Your task to perform on an android device: create a new album in the google photos Image 0: 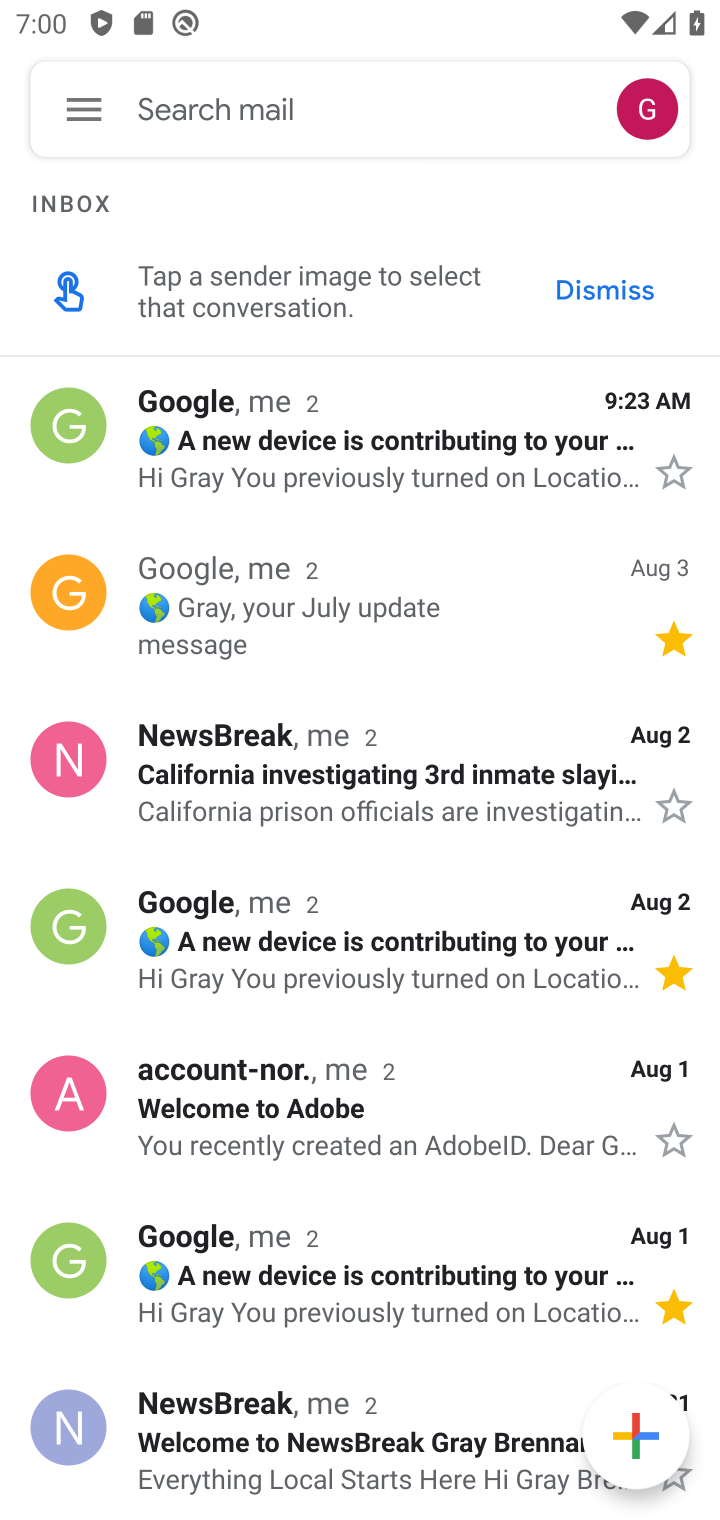
Step 0: press home button
Your task to perform on an android device: create a new album in the google photos Image 1: 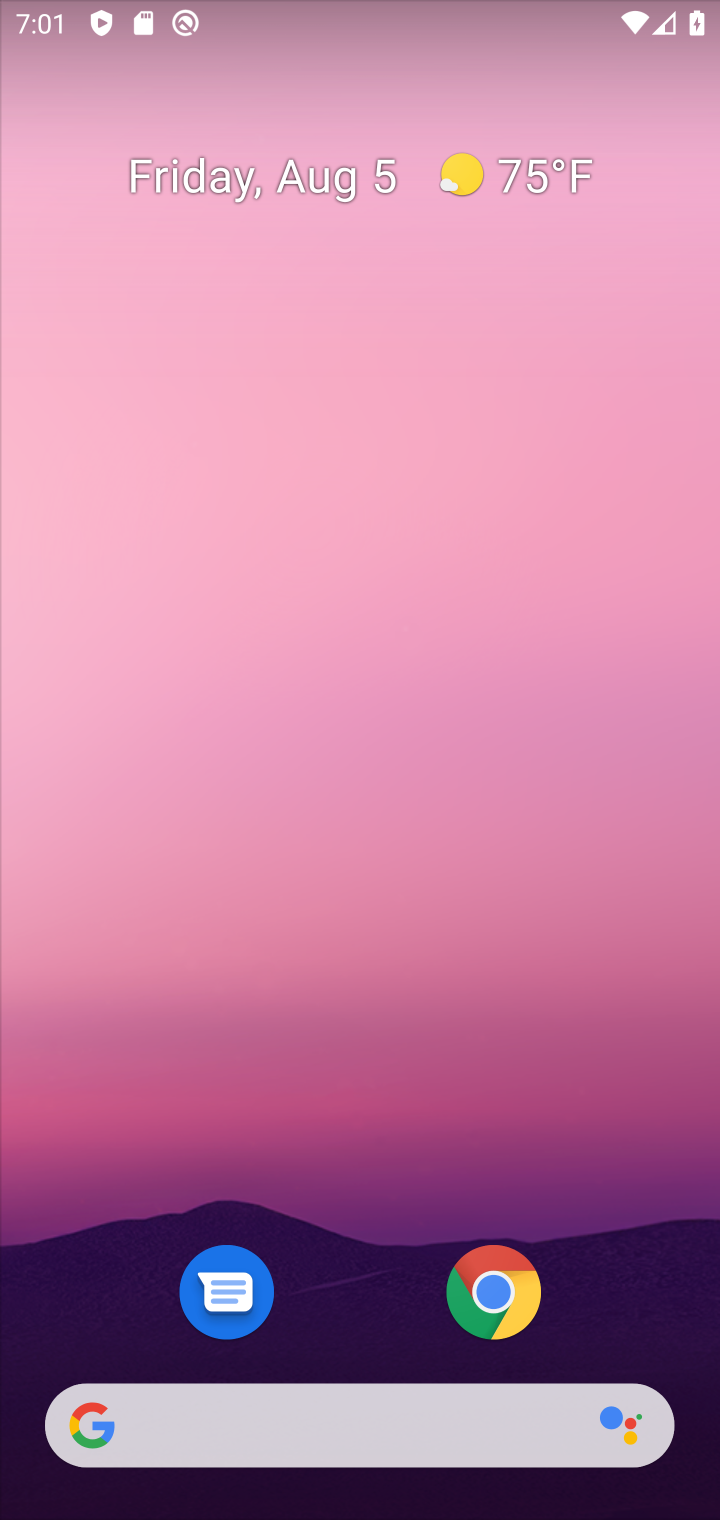
Step 1: drag from (365, 1267) to (376, 30)
Your task to perform on an android device: create a new album in the google photos Image 2: 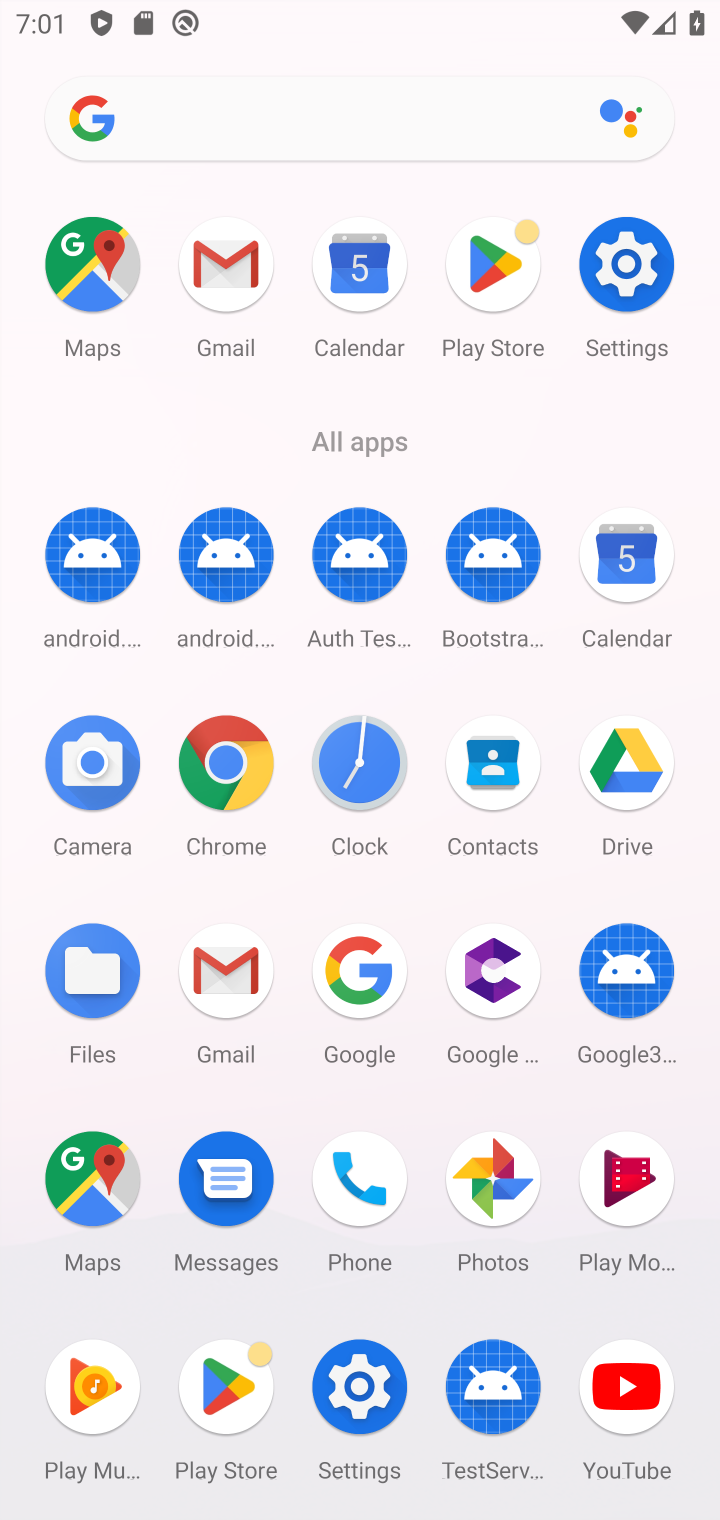
Step 2: click (505, 1181)
Your task to perform on an android device: create a new album in the google photos Image 3: 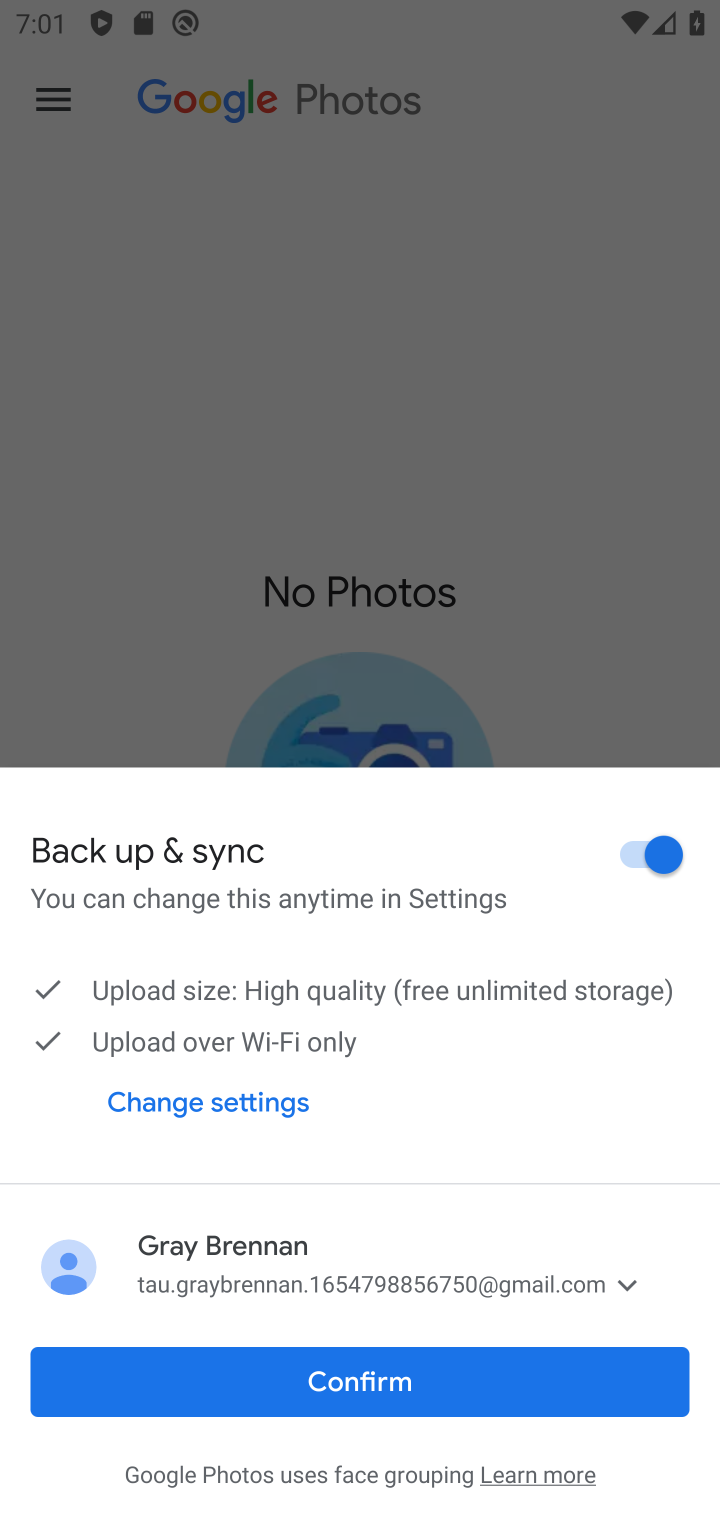
Step 3: click (532, 1375)
Your task to perform on an android device: create a new album in the google photos Image 4: 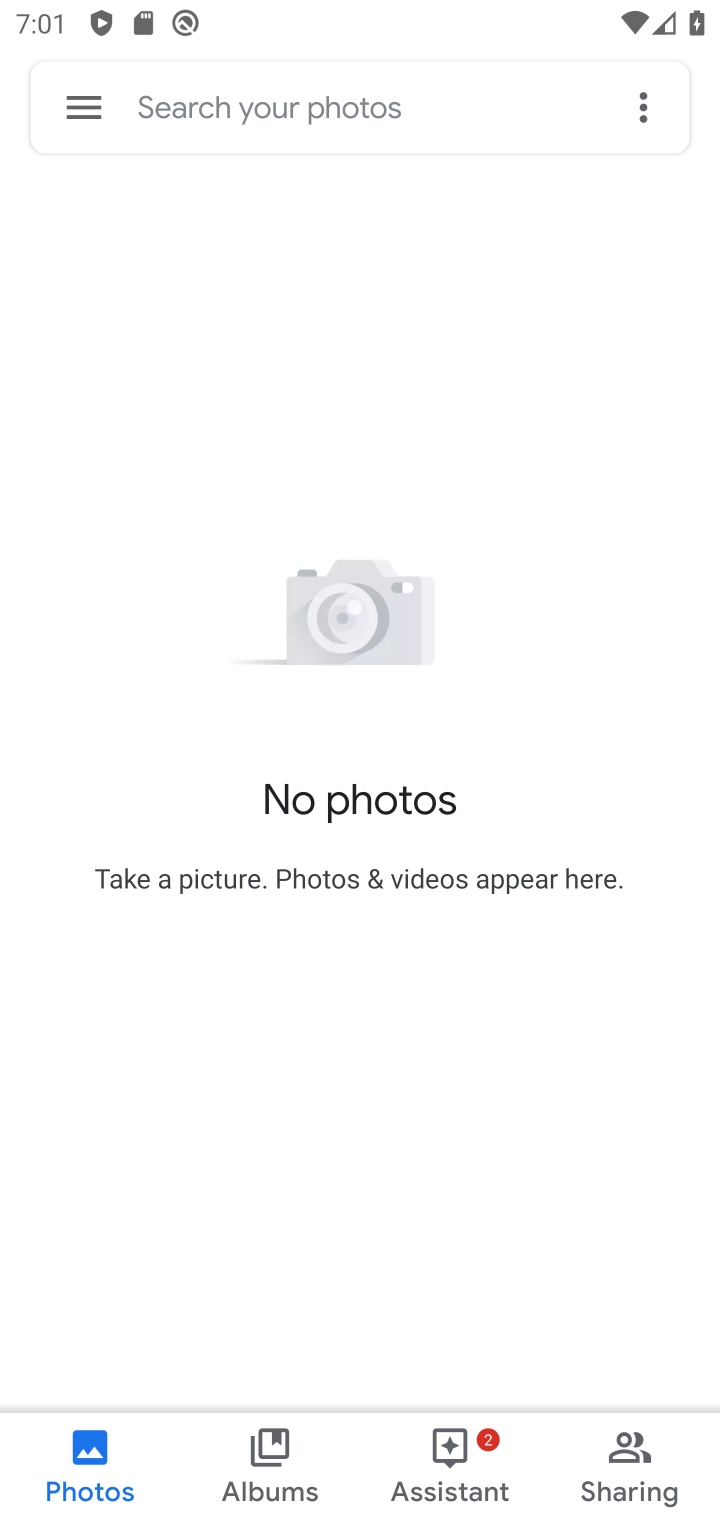
Step 4: click (273, 1440)
Your task to perform on an android device: create a new album in the google photos Image 5: 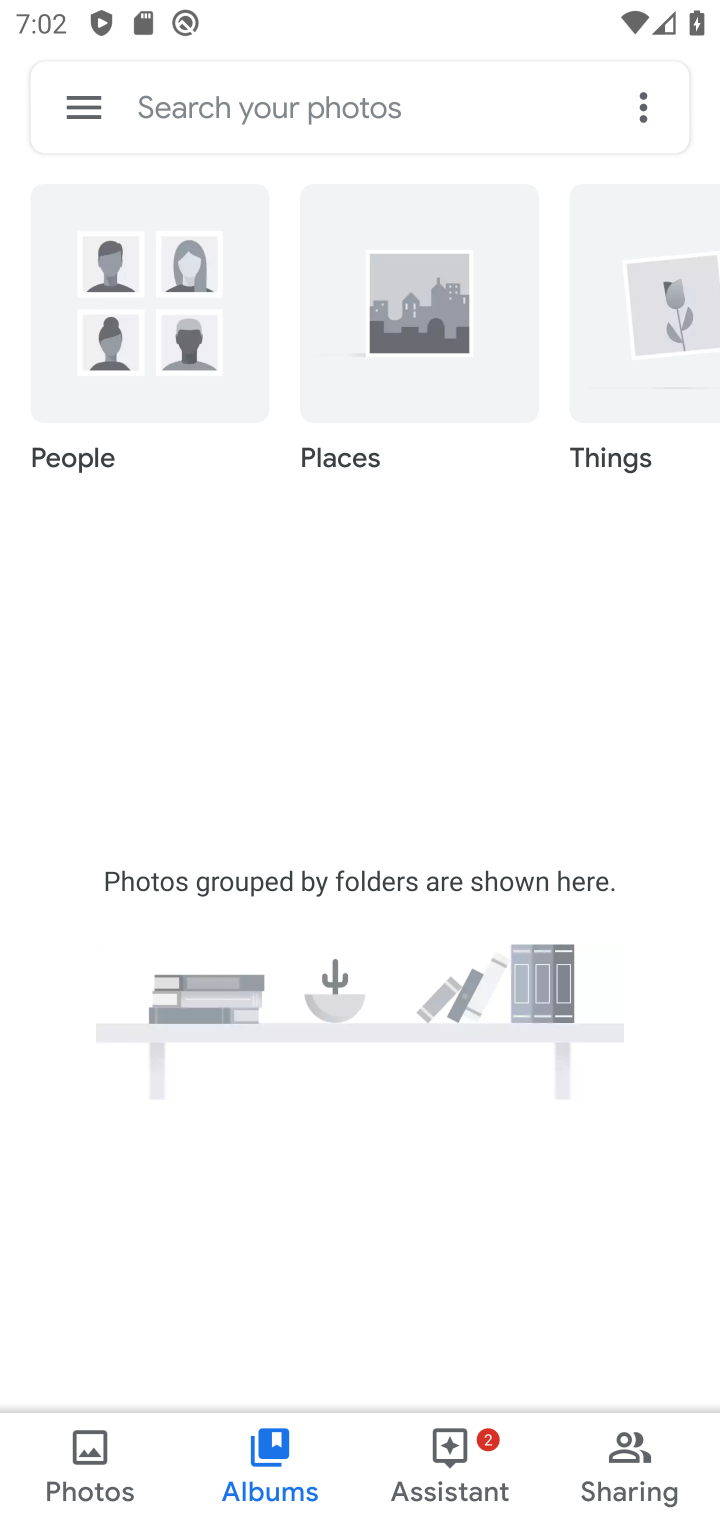
Step 5: click (648, 97)
Your task to perform on an android device: create a new album in the google photos Image 6: 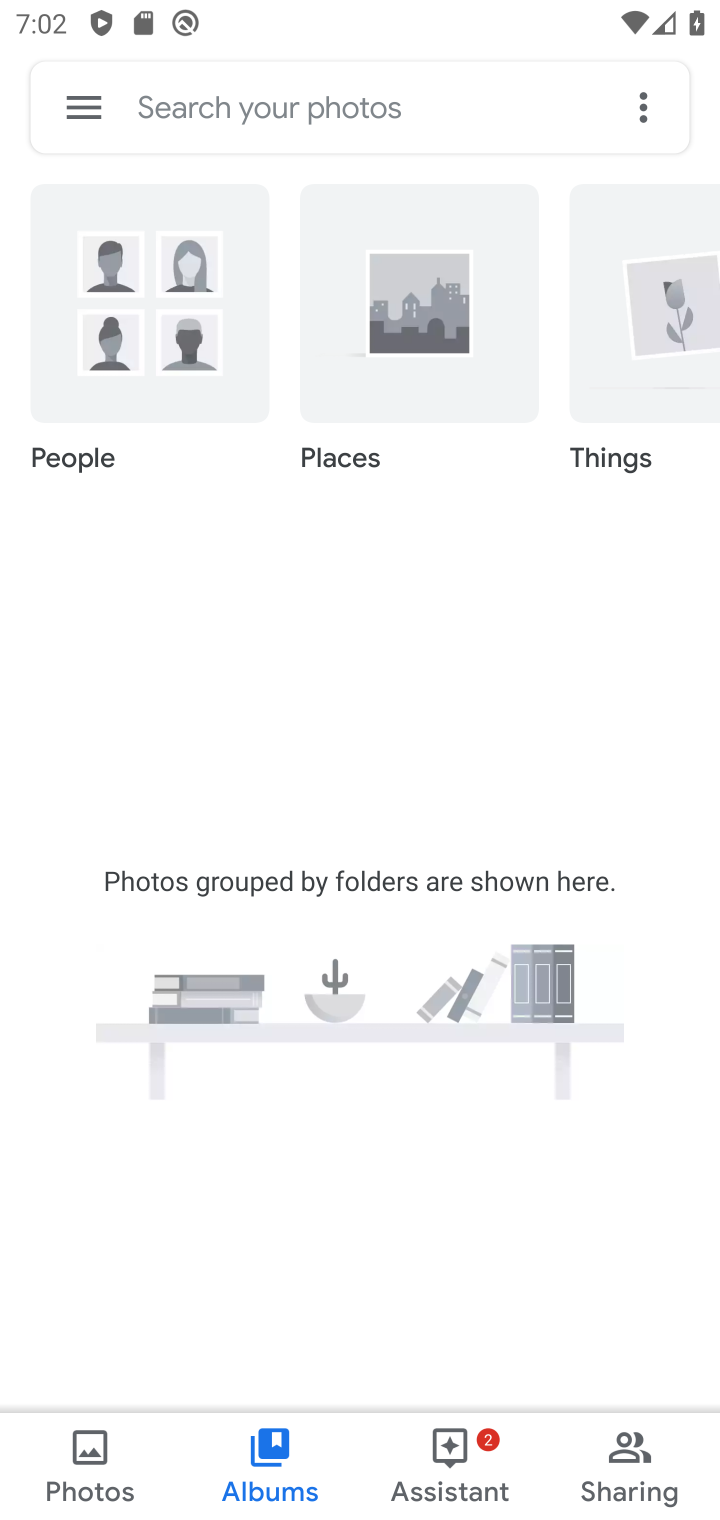
Step 6: click (641, 107)
Your task to perform on an android device: create a new album in the google photos Image 7: 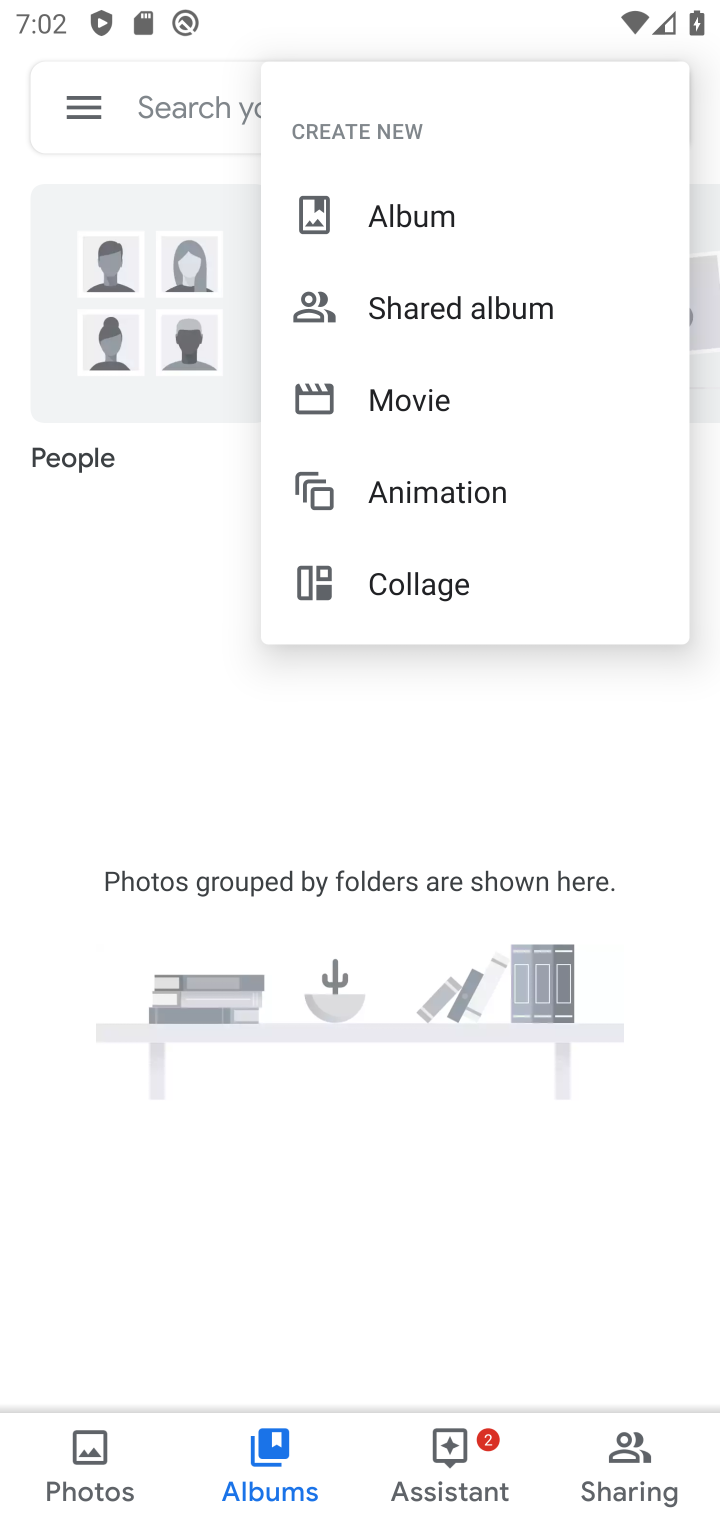
Step 7: click (489, 221)
Your task to perform on an android device: create a new album in the google photos Image 8: 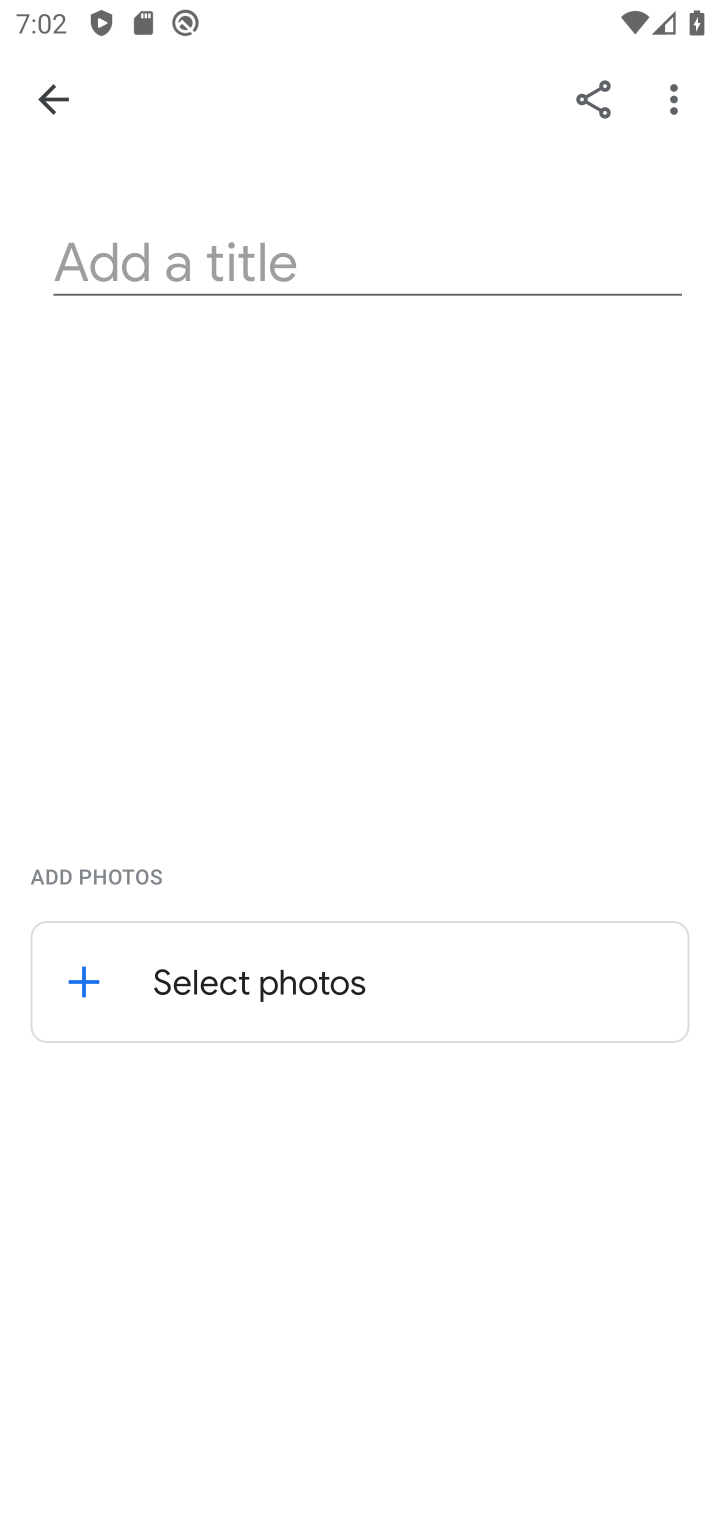
Step 8: click (470, 262)
Your task to perform on an android device: create a new album in the google photos Image 9: 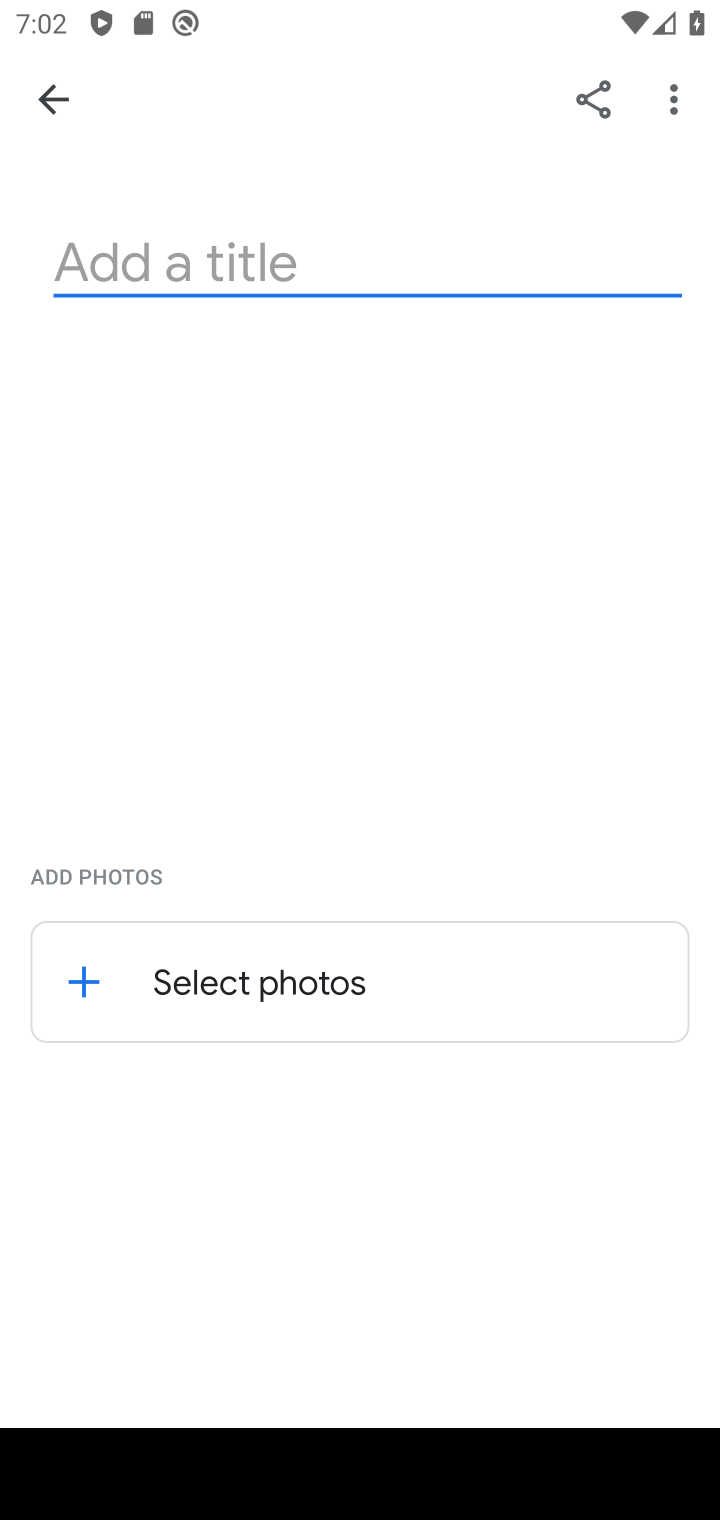
Step 9: type "Om"
Your task to perform on an android device: create a new album in the google photos Image 10: 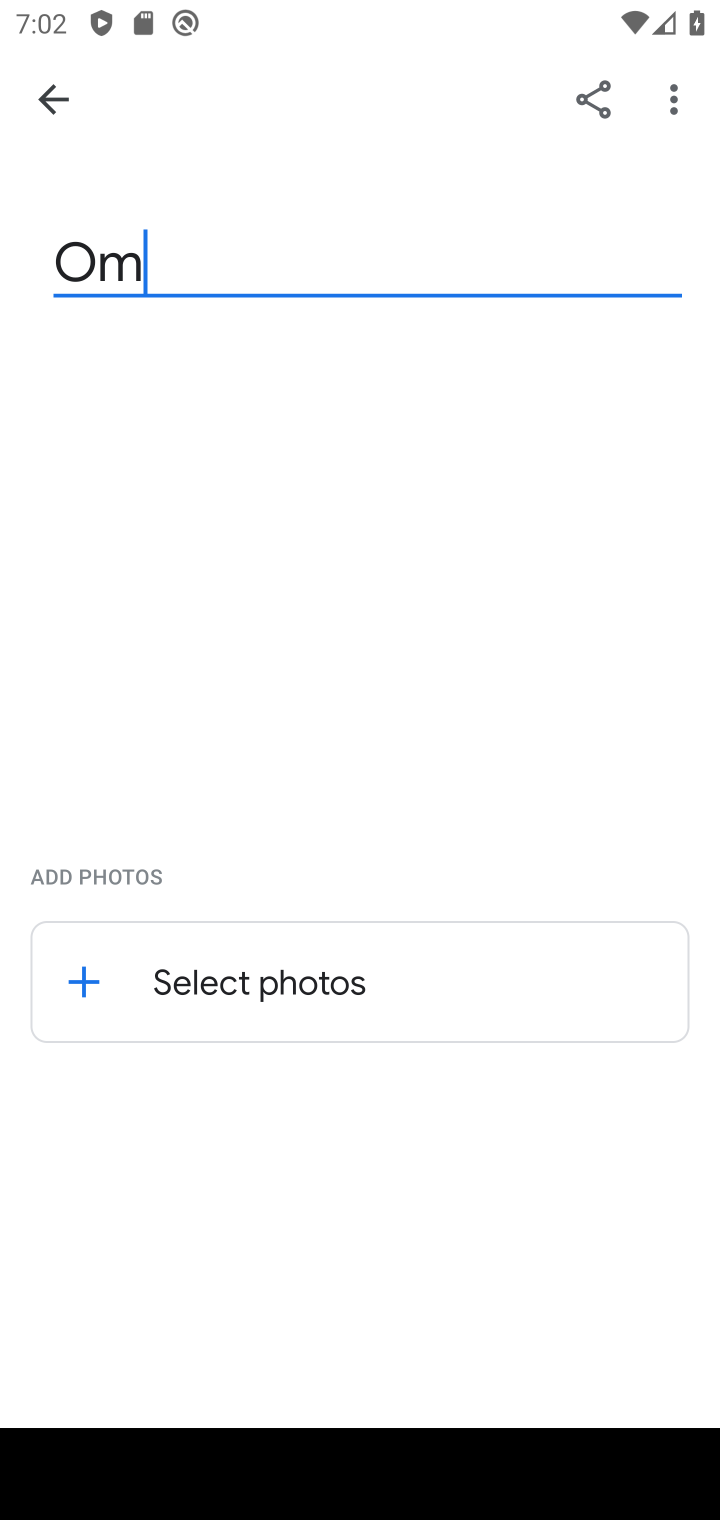
Step 10: click (80, 983)
Your task to perform on an android device: create a new album in the google photos Image 11: 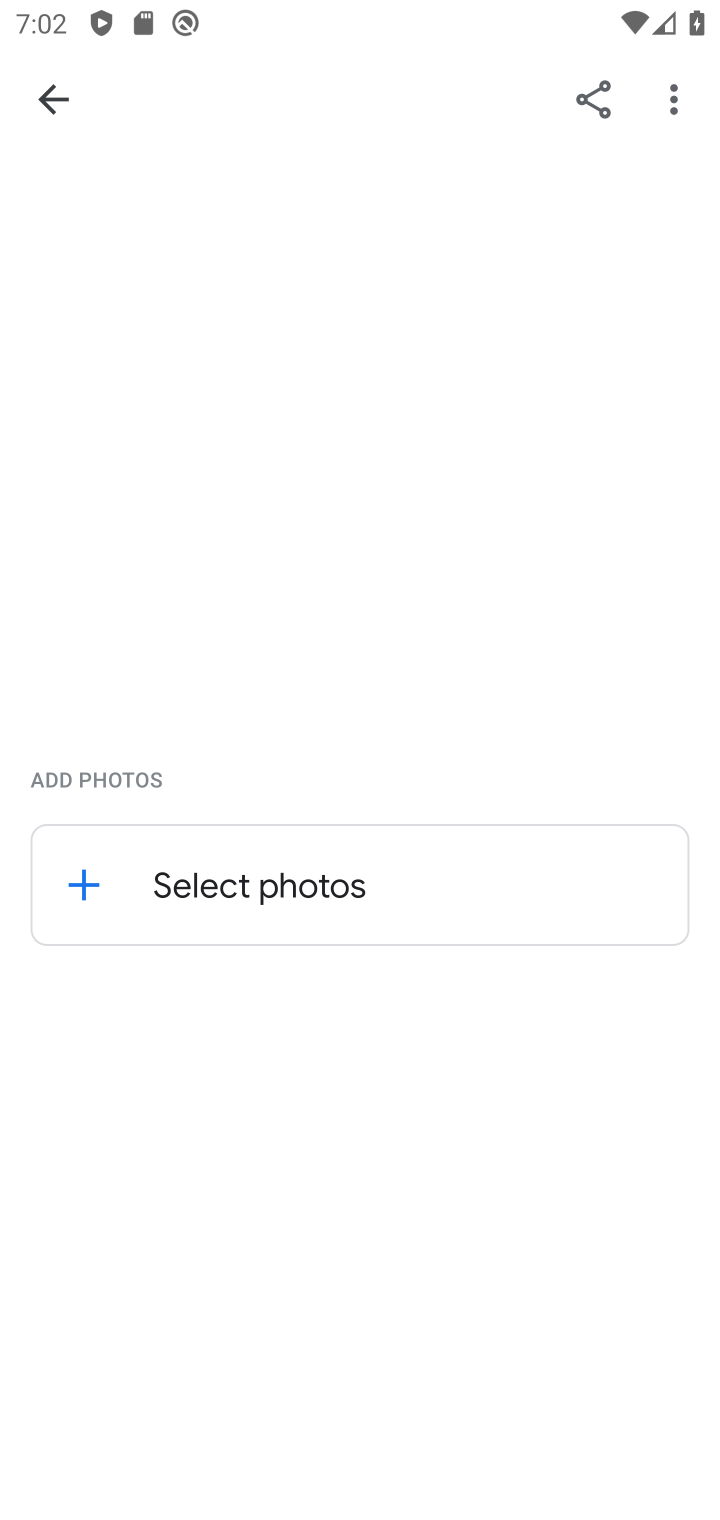
Step 11: click (80, 872)
Your task to perform on an android device: create a new album in the google photos Image 12: 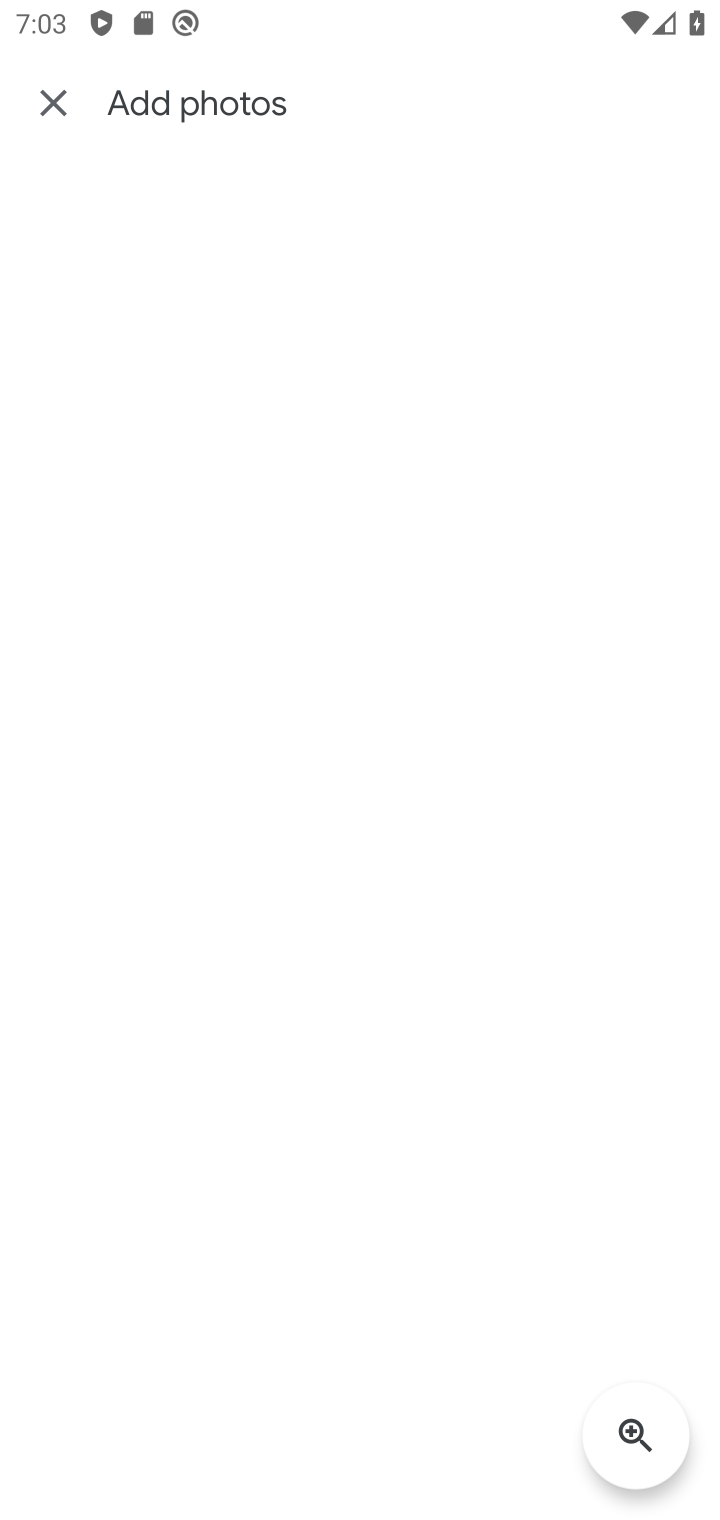
Step 12: task complete